Your task to perform on an android device: set the timer Image 0: 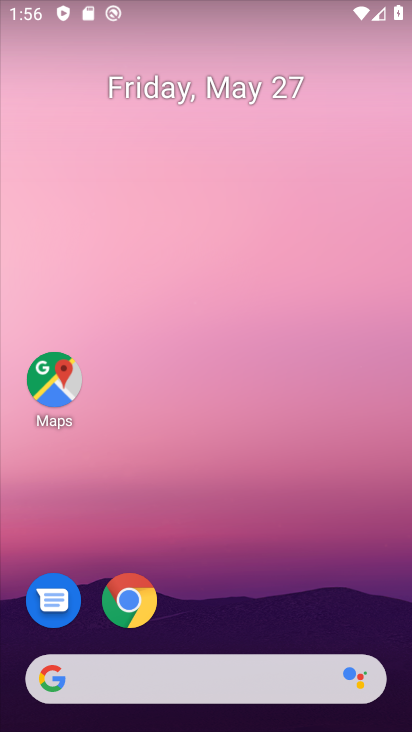
Step 0: drag from (204, 389) to (172, 38)
Your task to perform on an android device: set the timer Image 1: 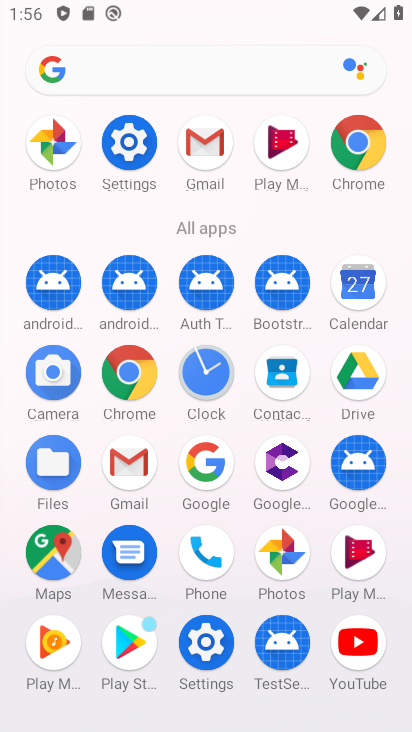
Step 1: drag from (2, 533) to (2, 245)
Your task to perform on an android device: set the timer Image 2: 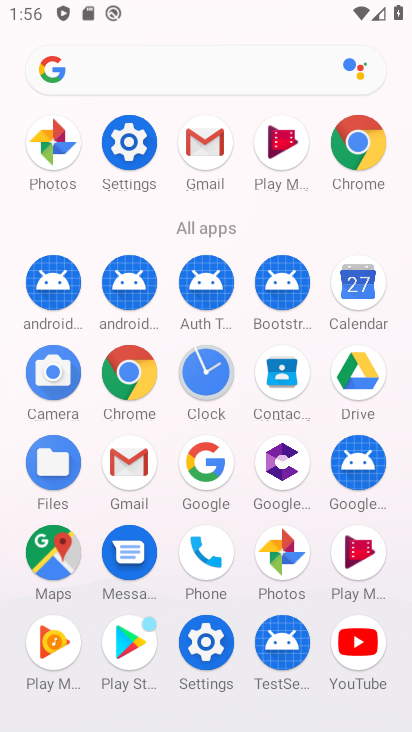
Step 2: click (199, 369)
Your task to perform on an android device: set the timer Image 3: 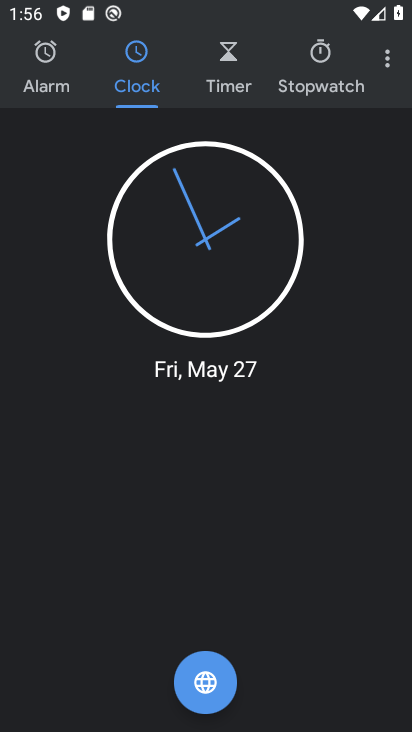
Step 3: drag from (386, 59) to (226, 56)
Your task to perform on an android device: set the timer Image 4: 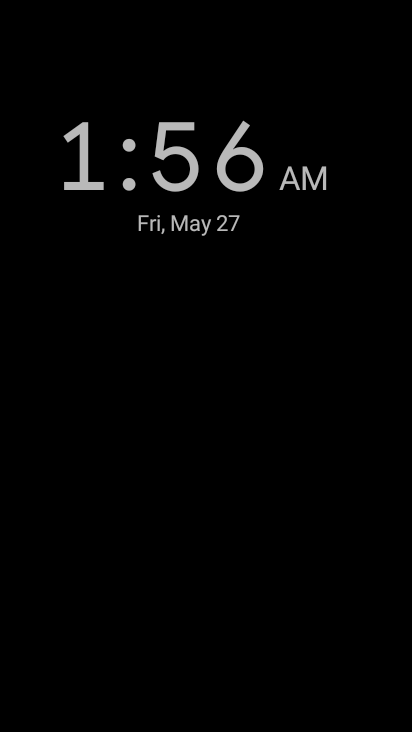
Step 4: press back button
Your task to perform on an android device: set the timer Image 5: 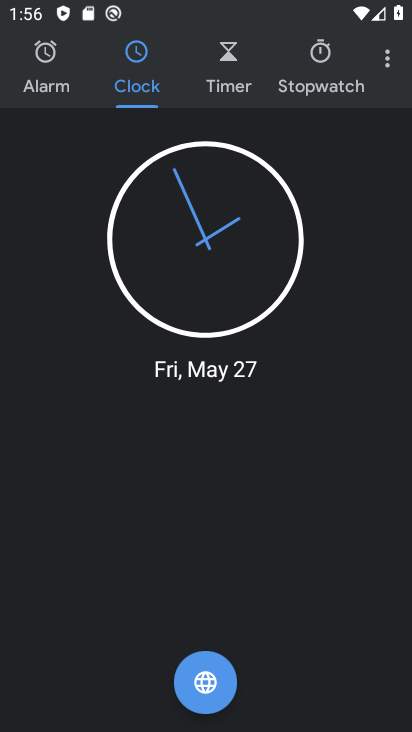
Step 5: click (229, 73)
Your task to perform on an android device: set the timer Image 6: 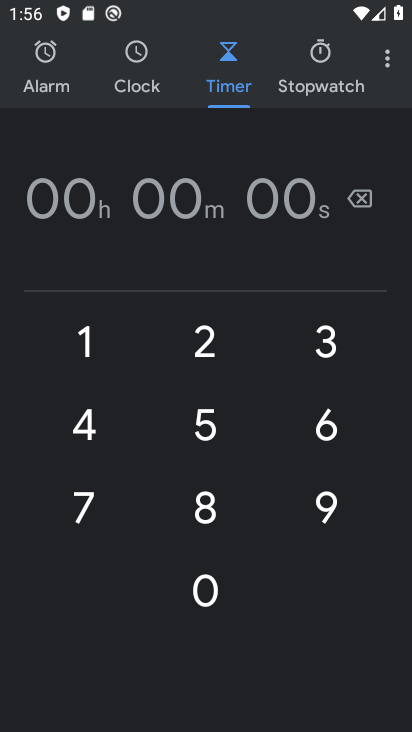
Step 6: click (212, 414)
Your task to perform on an android device: set the timer Image 7: 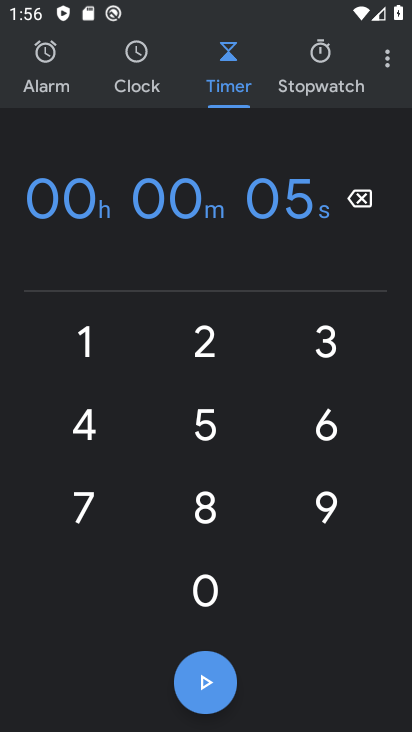
Step 7: click (210, 323)
Your task to perform on an android device: set the timer Image 8: 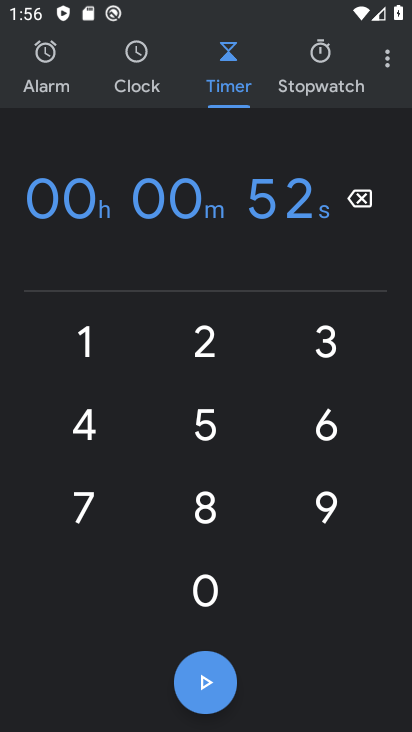
Step 8: click (197, 494)
Your task to perform on an android device: set the timer Image 9: 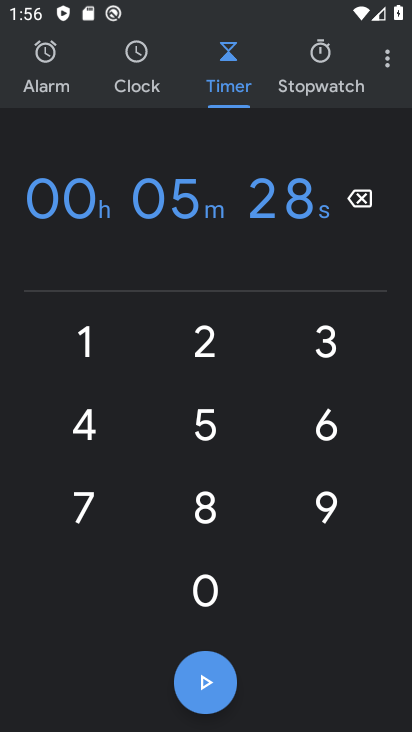
Step 9: click (321, 504)
Your task to perform on an android device: set the timer Image 10: 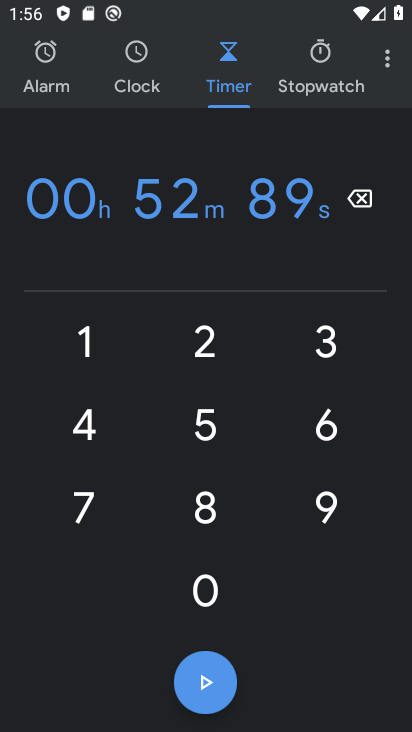
Step 10: click (200, 670)
Your task to perform on an android device: set the timer Image 11: 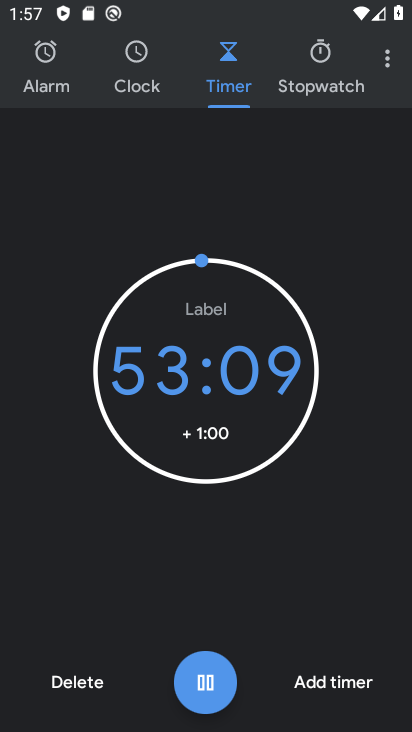
Step 11: task complete